Your task to perform on an android device: set the timer Image 0: 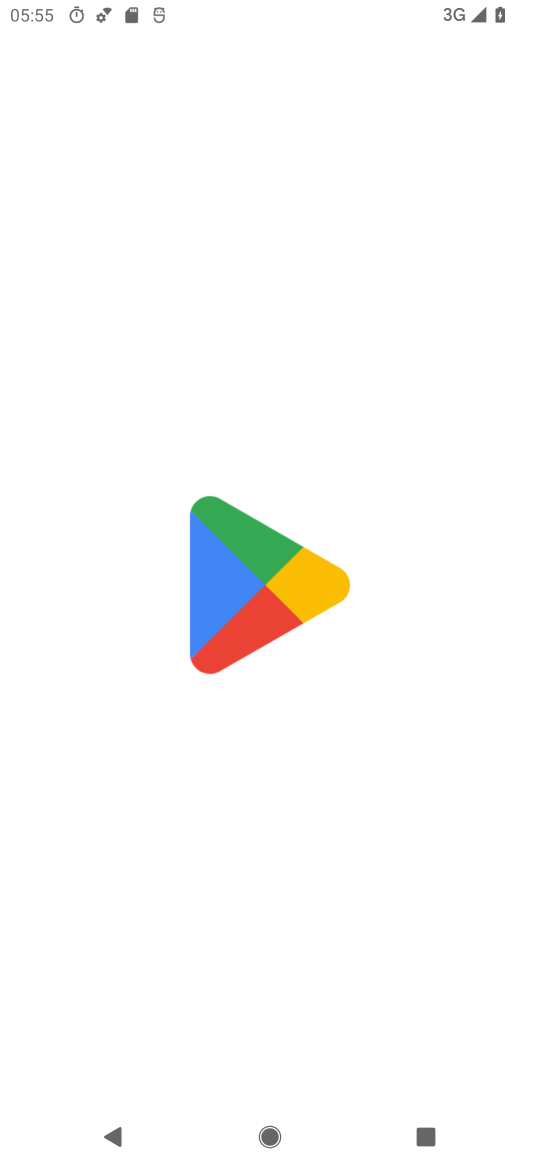
Step 0: press home button
Your task to perform on an android device: set the timer Image 1: 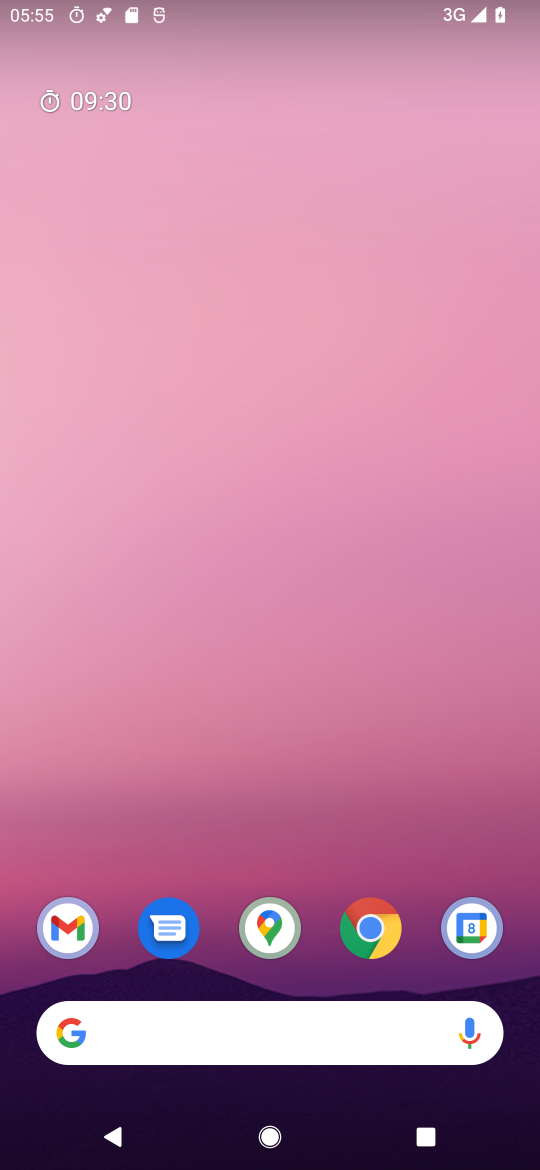
Step 1: drag from (210, 991) to (221, 0)
Your task to perform on an android device: set the timer Image 2: 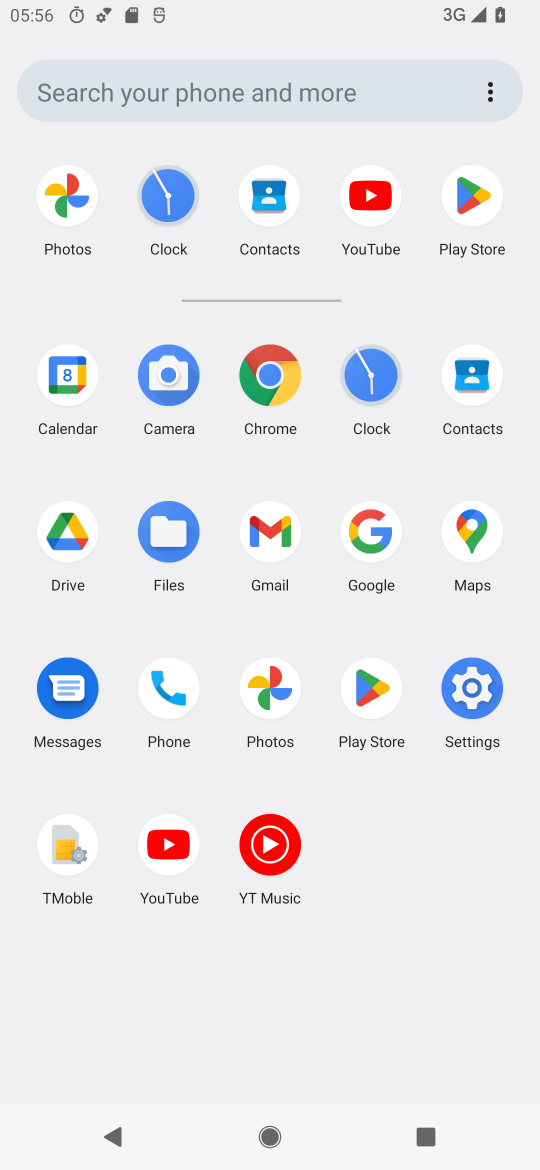
Step 2: click (364, 406)
Your task to perform on an android device: set the timer Image 3: 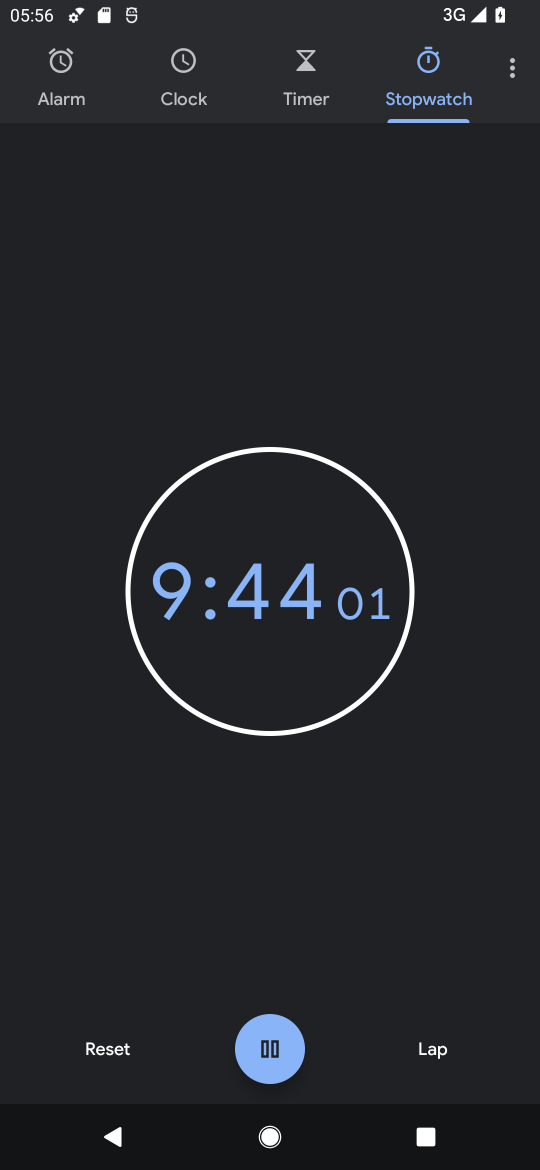
Step 3: click (295, 95)
Your task to perform on an android device: set the timer Image 4: 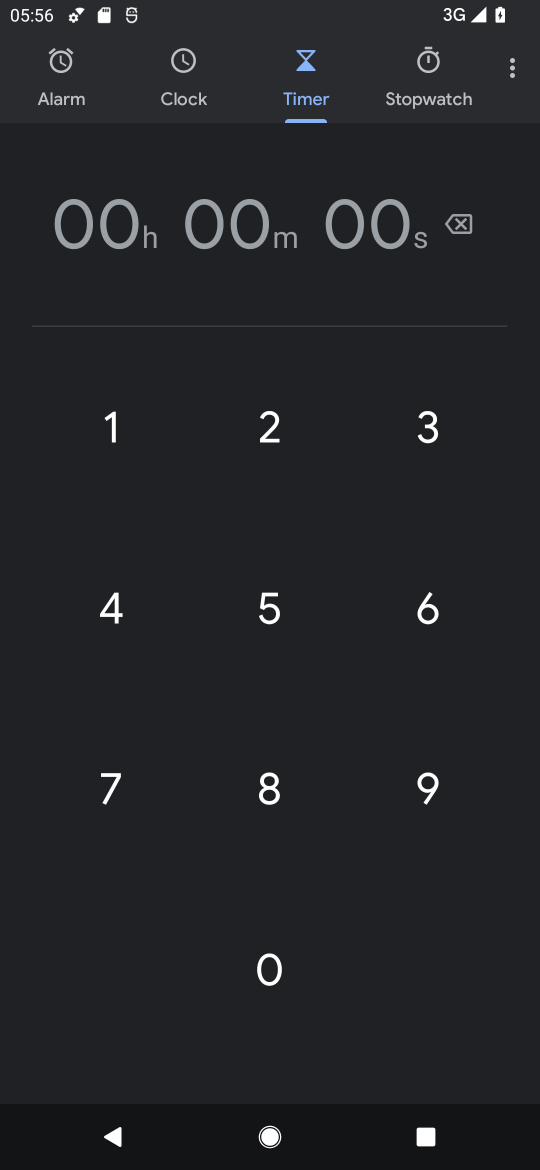
Step 4: click (441, 769)
Your task to perform on an android device: set the timer Image 5: 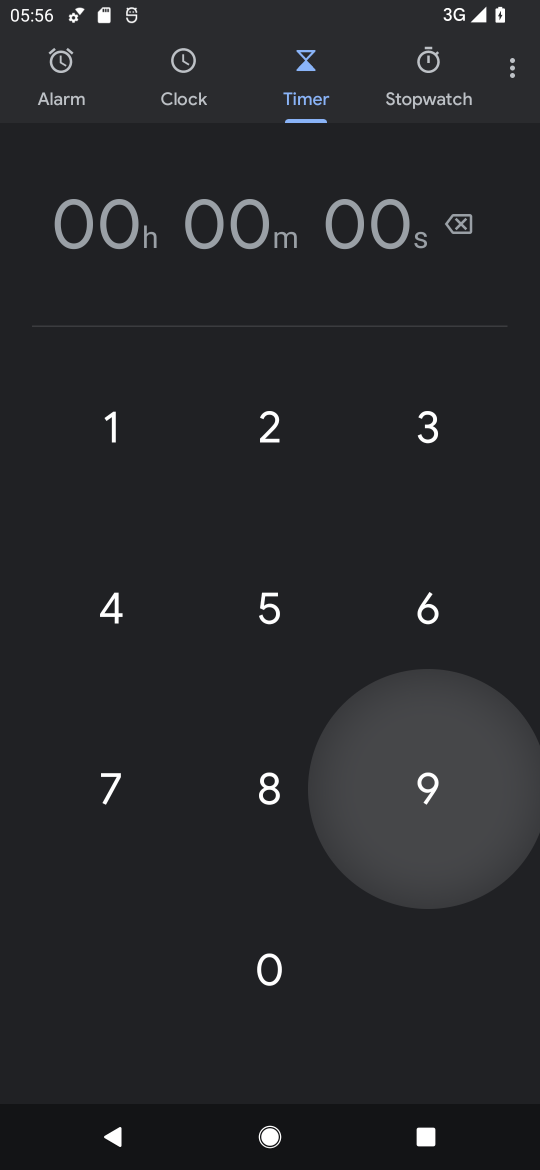
Step 5: click (104, 601)
Your task to perform on an android device: set the timer Image 6: 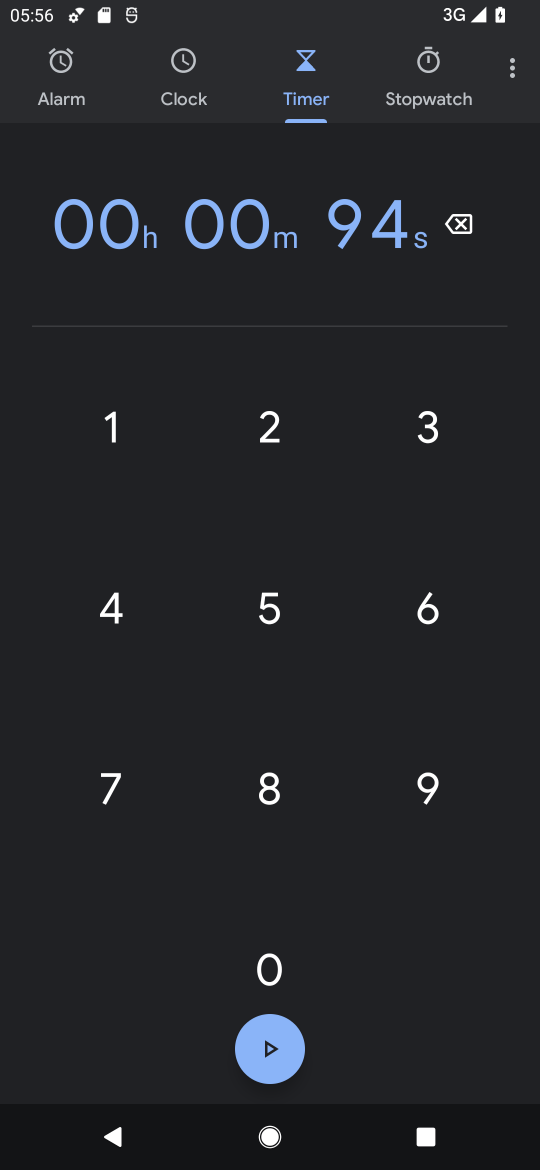
Step 6: click (108, 806)
Your task to perform on an android device: set the timer Image 7: 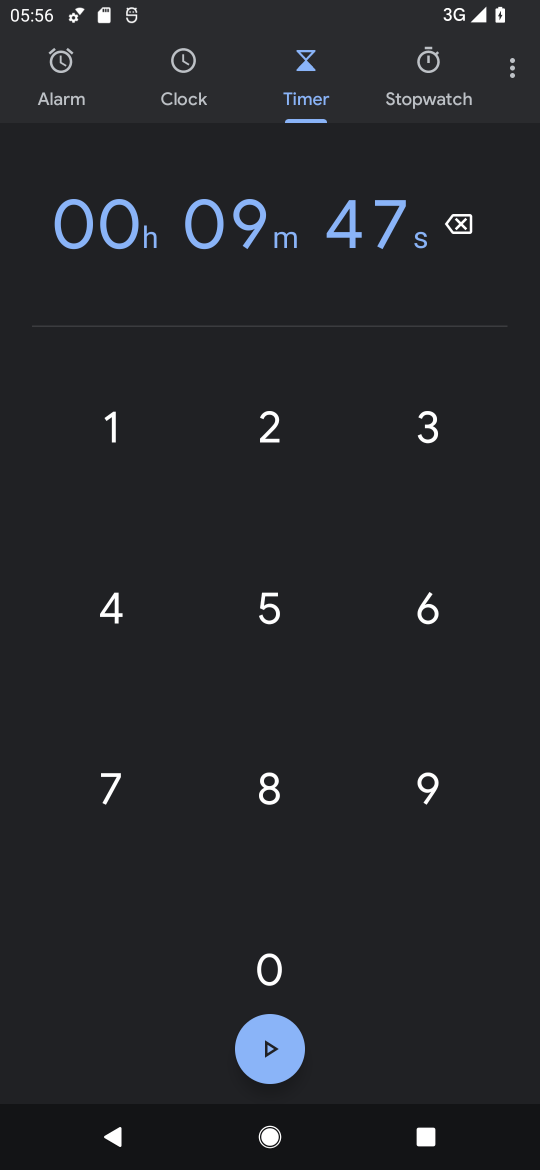
Step 7: click (290, 1059)
Your task to perform on an android device: set the timer Image 8: 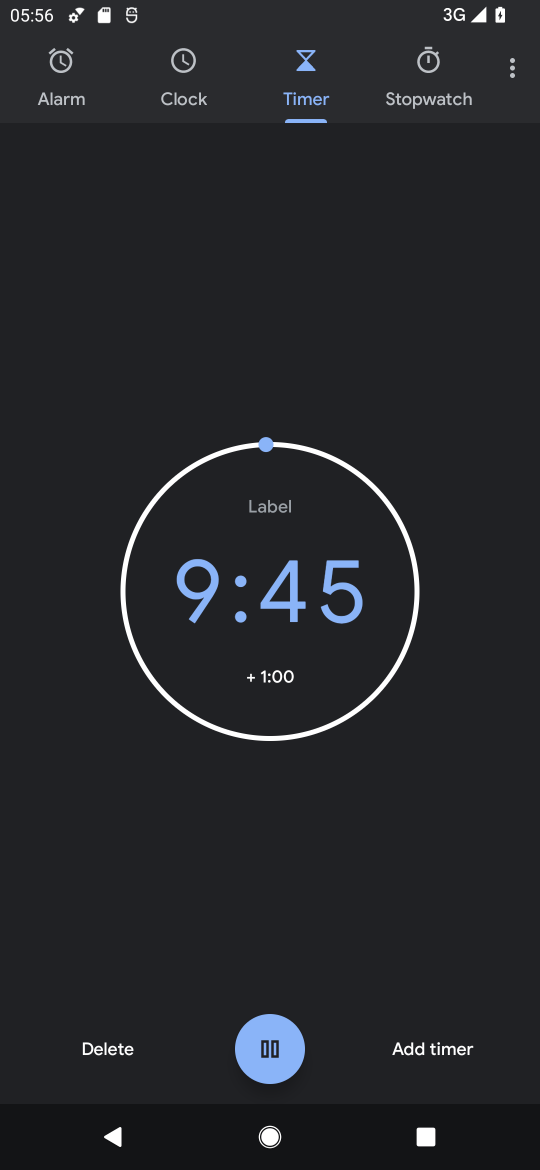
Step 8: task complete